Your task to perform on an android device: turn on notifications settings in the gmail app Image 0: 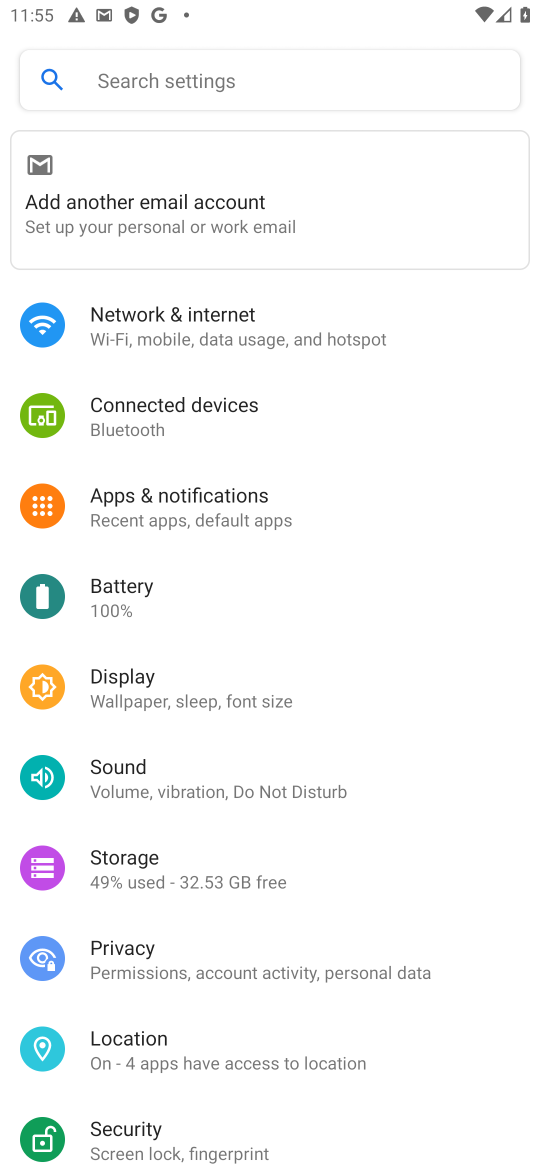
Step 0: click (191, 530)
Your task to perform on an android device: turn on notifications settings in the gmail app Image 1: 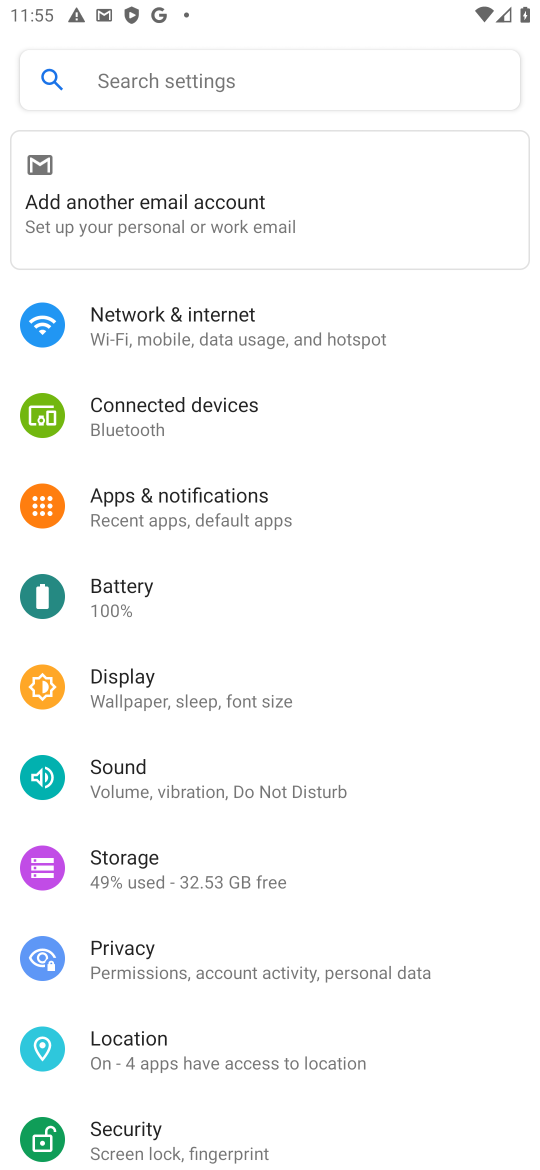
Step 1: task complete